Your task to perform on an android device: Show me popular videos on Youtube Image 0: 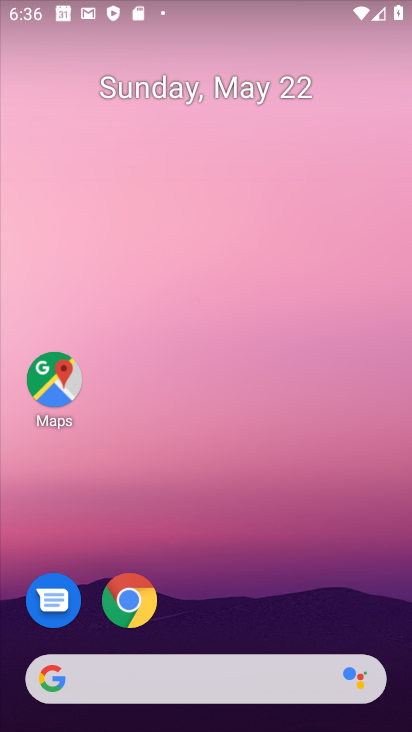
Step 0: drag from (385, 638) to (219, 68)
Your task to perform on an android device: Show me popular videos on Youtube Image 1: 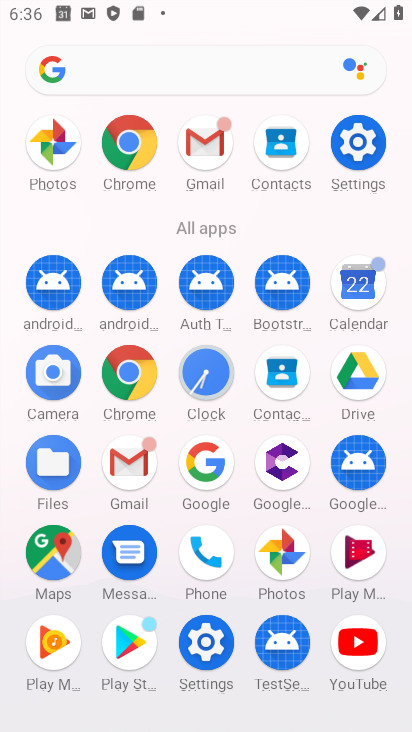
Step 1: click (348, 640)
Your task to perform on an android device: Show me popular videos on Youtube Image 2: 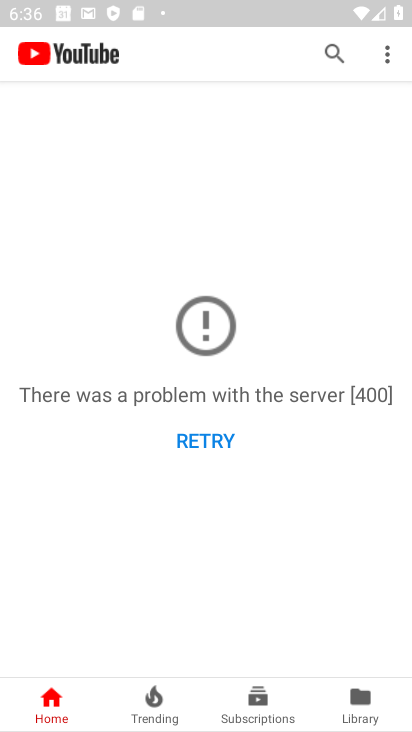
Step 2: click (206, 450)
Your task to perform on an android device: Show me popular videos on Youtube Image 3: 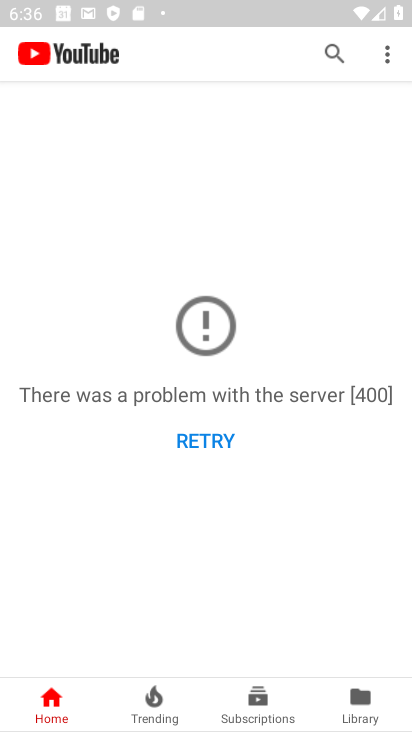
Step 3: task complete